Your task to perform on an android device: Open Chrome and go to the settings page Image 0: 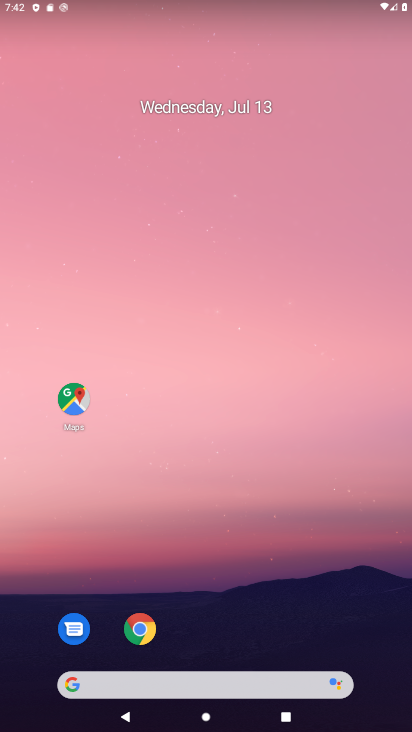
Step 0: drag from (326, 575) to (308, 60)
Your task to perform on an android device: Open Chrome and go to the settings page Image 1: 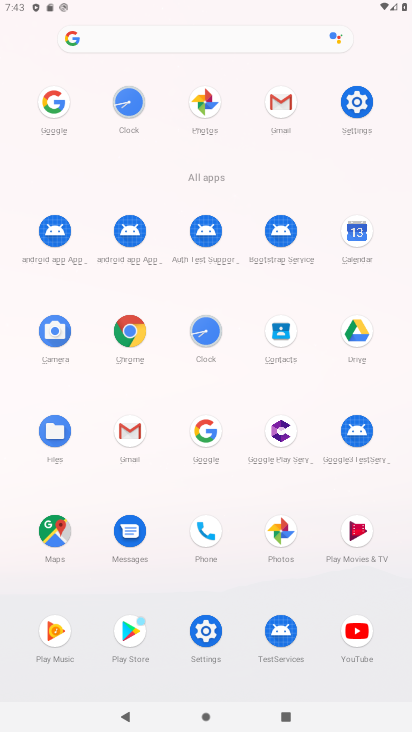
Step 1: click (143, 334)
Your task to perform on an android device: Open Chrome and go to the settings page Image 2: 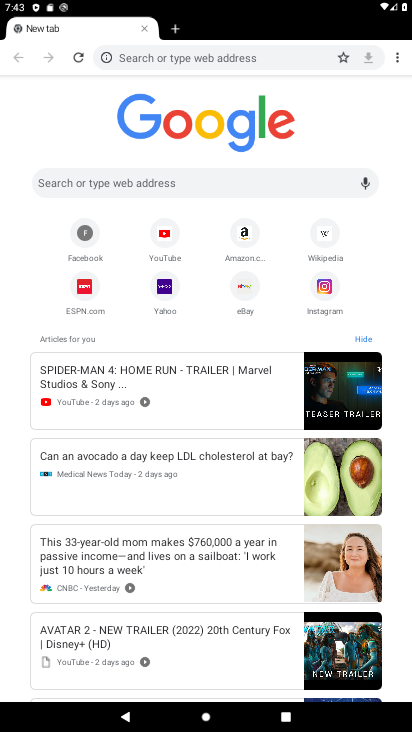
Step 2: task complete